Your task to perform on an android device: Go to Google maps Image 0: 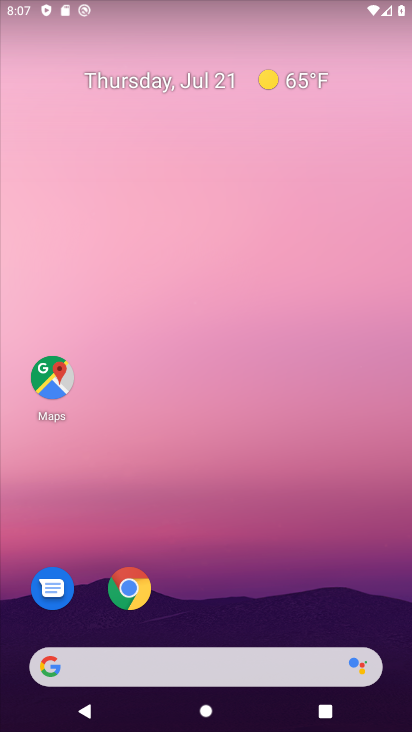
Step 0: drag from (220, 642) to (223, 16)
Your task to perform on an android device: Go to Google maps Image 1: 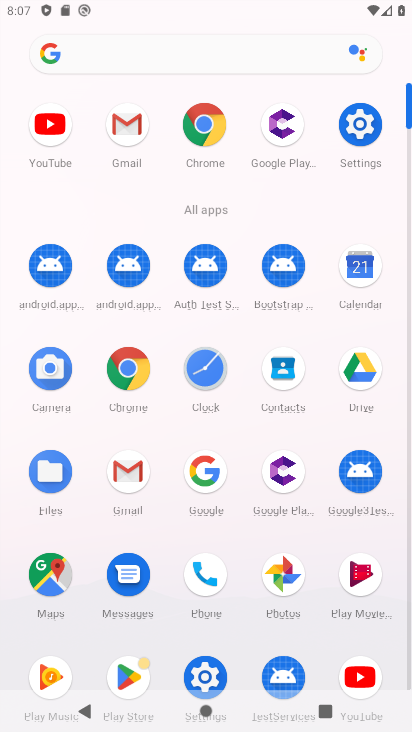
Step 1: click (60, 567)
Your task to perform on an android device: Go to Google maps Image 2: 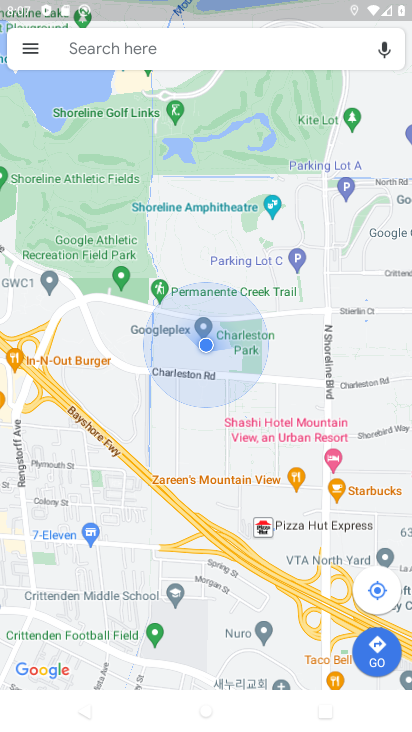
Step 2: task complete